Your task to perform on an android device: find photos in the google photos app Image 0: 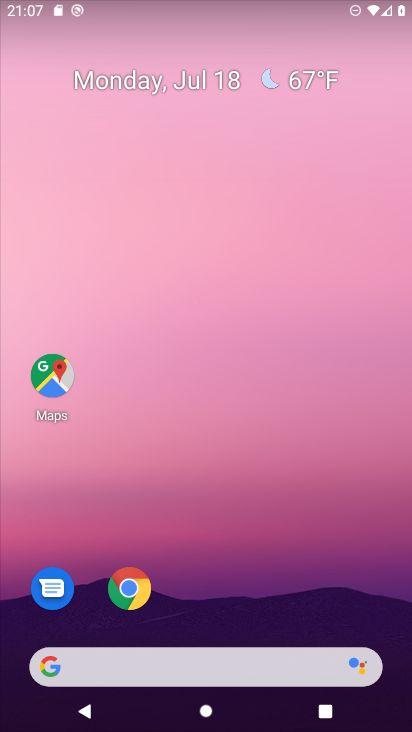
Step 0: drag from (396, 630) to (303, 152)
Your task to perform on an android device: find photos in the google photos app Image 1: 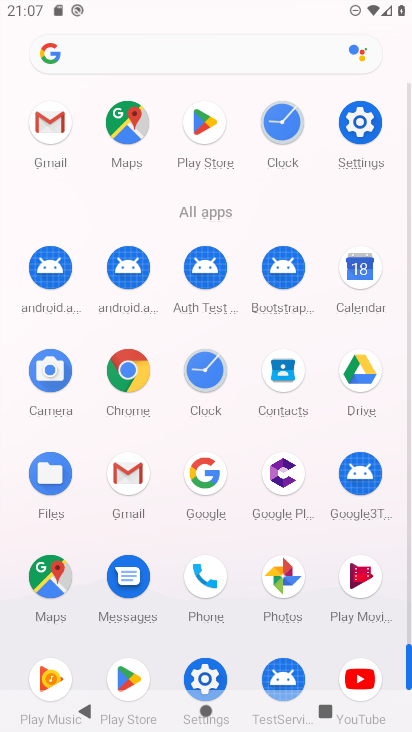
Step 1: click (284, 570)
Your task to perform on an android device: find photos in the google photos app Image 2: 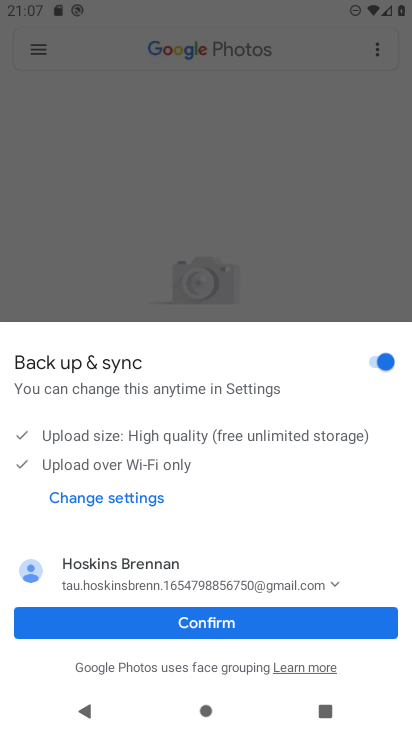
Step 2: click (204, 623)
Your task to perform on an android device: find photos in the google photos app Image 3: 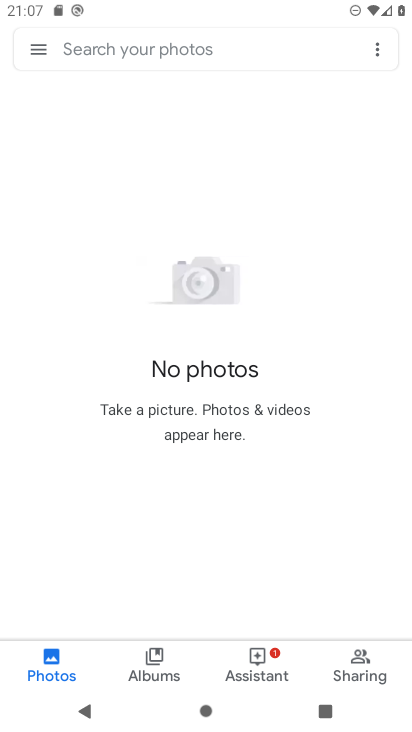
Step 3: task complete